Your task to perform on an android device: snooze an email in the gmail app Image 0: 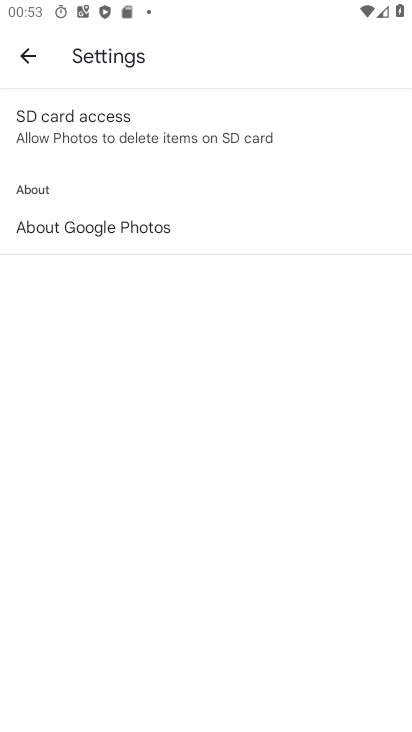
Step 0: press home button
Your task to perform on an android device: snooze an email in the gmail app Image 1: 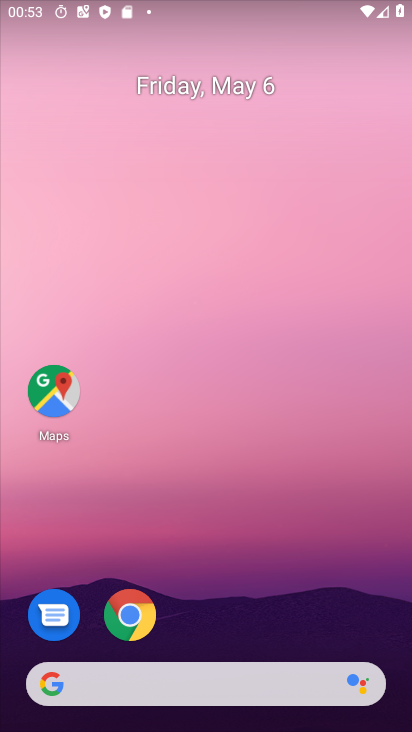
Step 1: drag from (244, 620) to (272, 33)
Your task to perform on an android device: snooze an email in the gmail app Image 2: 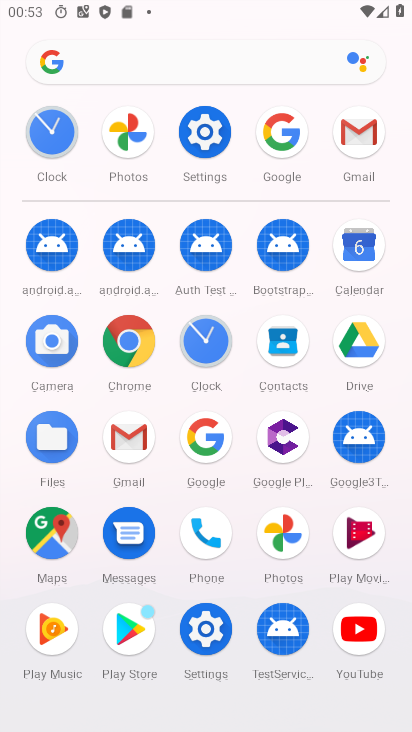
Step 2: click (362, 128)
Your task to perform on an android device: snooze an email in the gmail app Image 3: 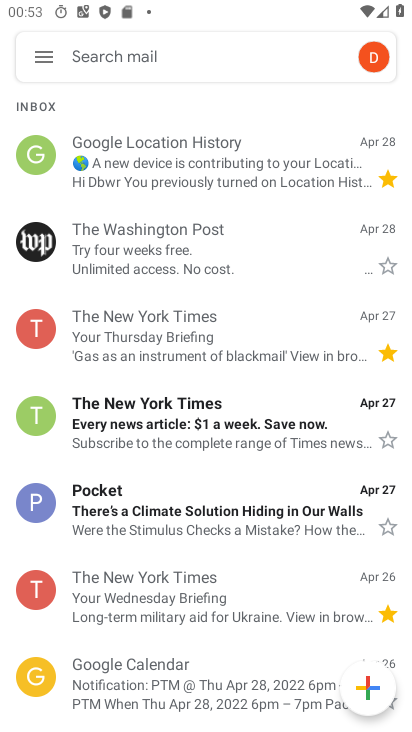
Step 3: drag from (48, 54) to (56, 254)
Your task to perform on an android device: snooze an email in the gmail app Image 4: 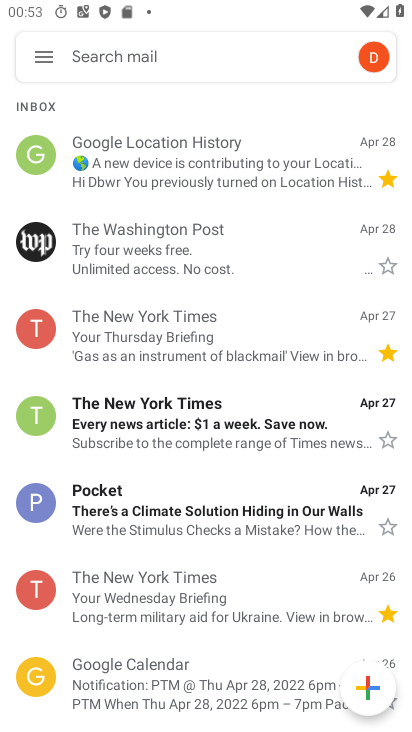
Step 4: click (146, 594)
Your task to perform on an android device: snooze an email in the gmail app Image 5: 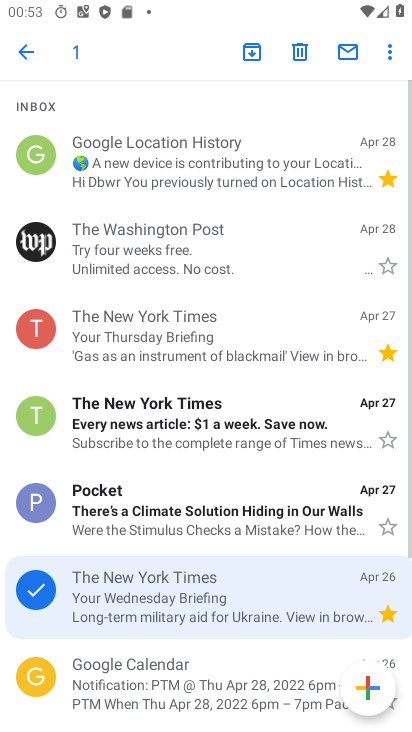
Step 5: click (384, 50)
Your task to perform on an android device: snooze an email in the gmail app Image 6: 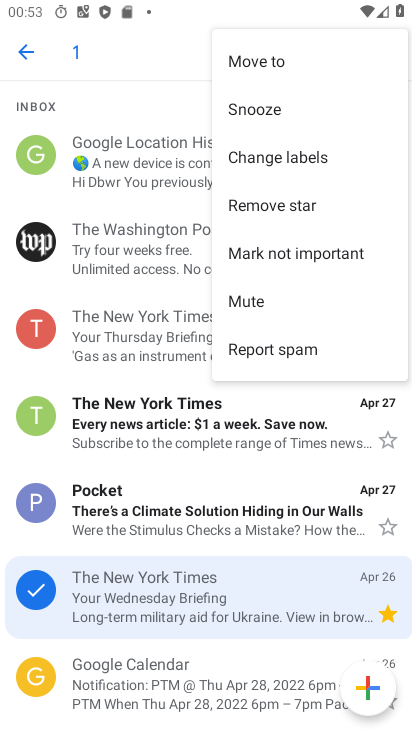
Step 6: click (257, 108)
Your task to perform on an android device: snooze an email in the gmail app Image 7: 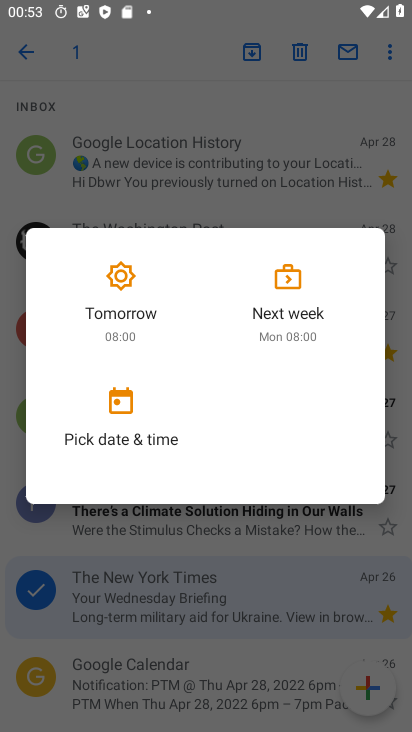
Step 7: click (281, 288)
Your task to perform on an android device: snooze an email in the gmail app Image 8: 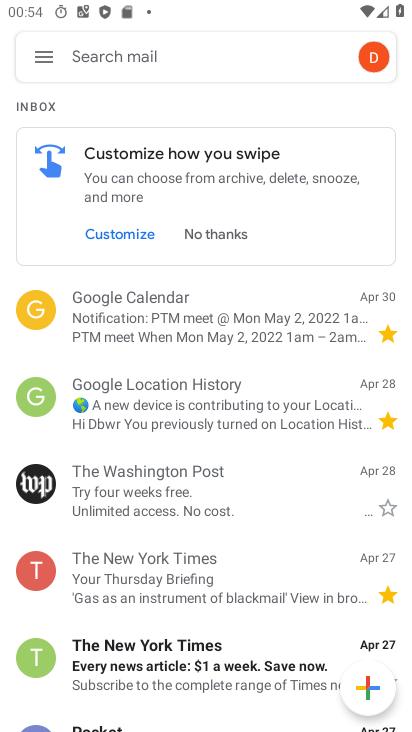
Step 8: task complete